Your task to perform on an android device: What's the weather going to be this weekend? Image 0: 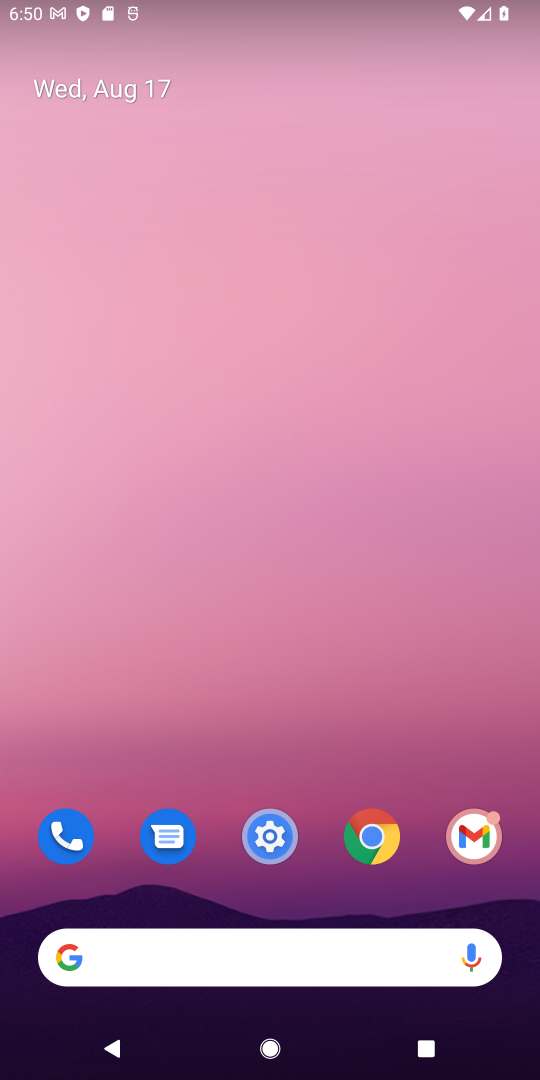
Step 0: drag from (345, 916) to (338, 389)
Your task to perform on an android device: What's the weather going to be this weekend? Image 1: 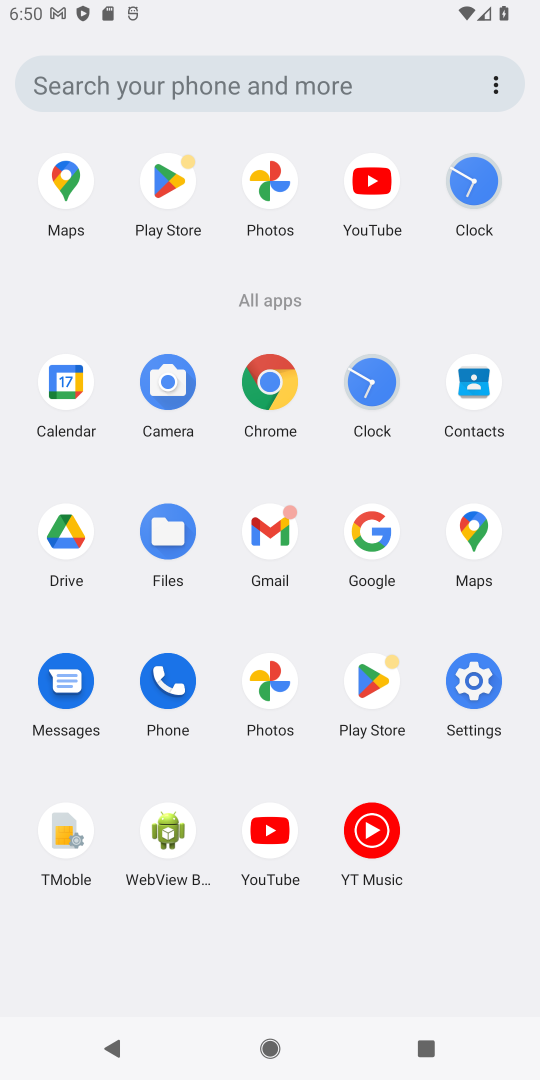
Step 1: click (275, 369)
Your task to perform on an android device: What's the weather going to be this weekend? Image 2: 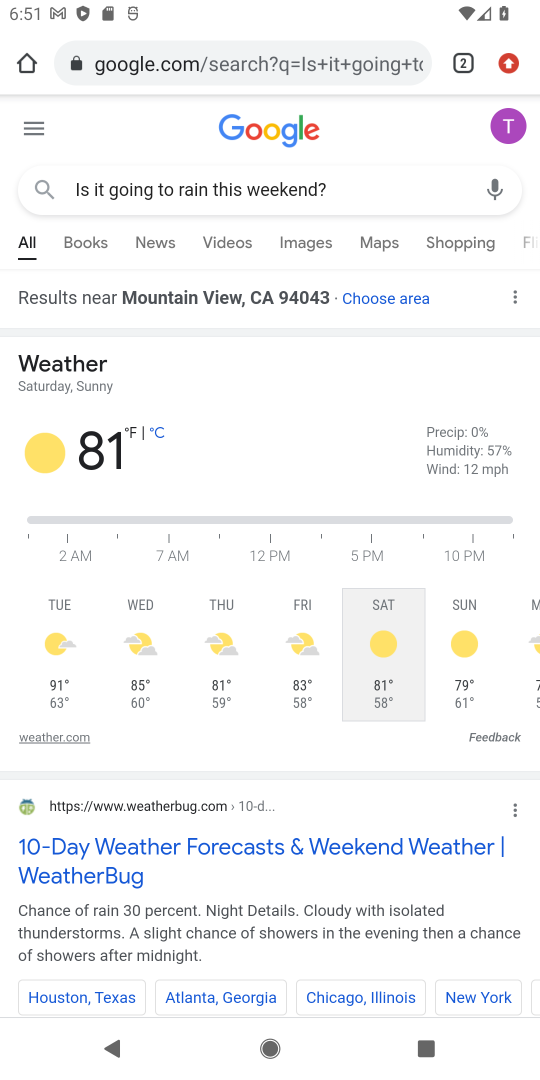
Step 2: click (492, 53)
Your task to perform on an android device: What's the weather going to be this weekend? Image 3: 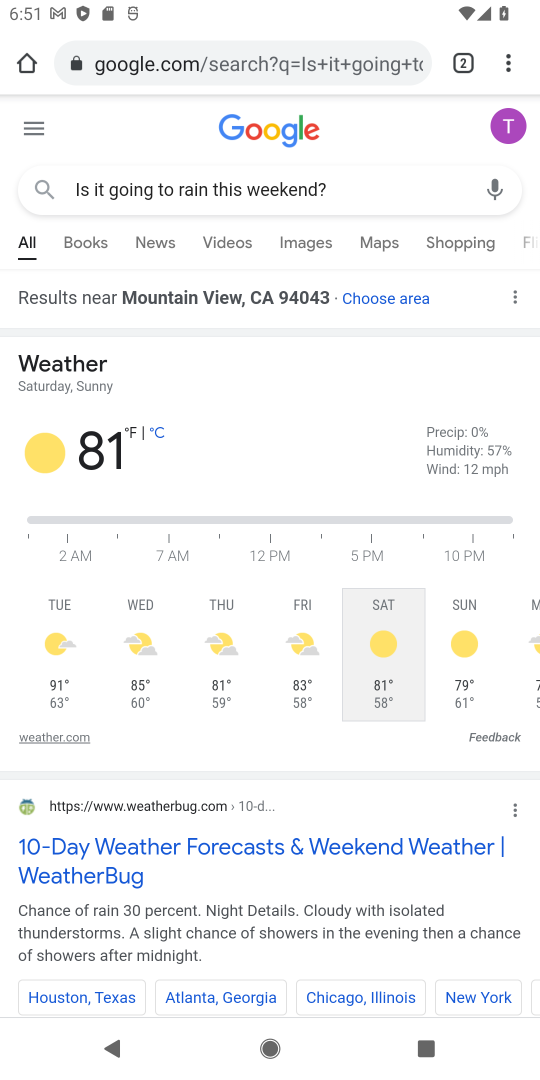
Step 3: click (510, 66)
Your task to perform on an android device: What's the weather going to be this weekend? Image 4: 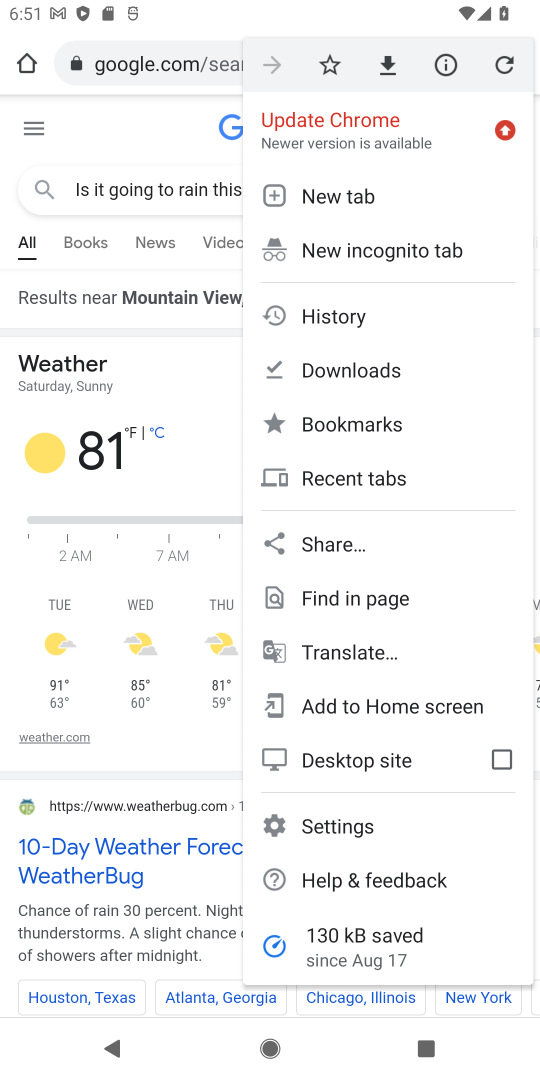
Step 4: click (371, 187)
Your task to perform on an android device: What's the weather going to be this weekend? Image 5: 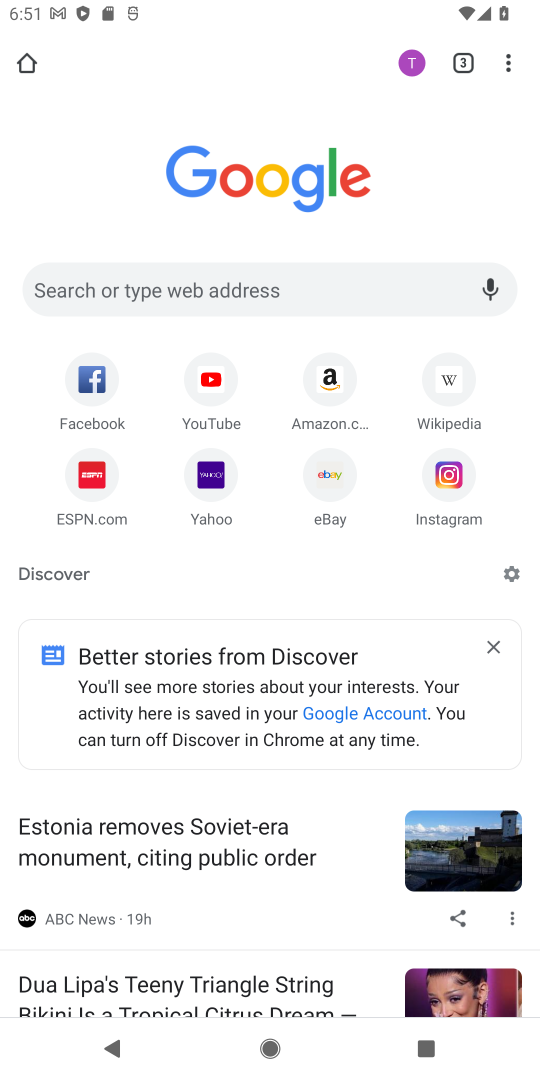
Step 5: drag from (302, 962) to (421, 1064)
Your task to perform on an android device: What's the weather going to be this weekend? Image 6: 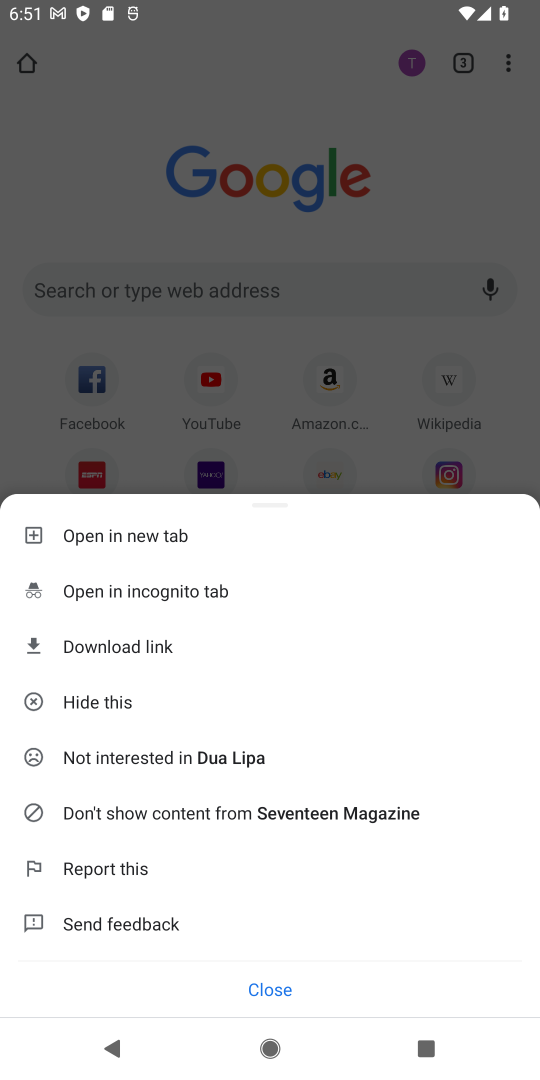
Step 6: click (188, 276)
Your task to perform on an android device: What's the weather going to be this weekend? Image 7: 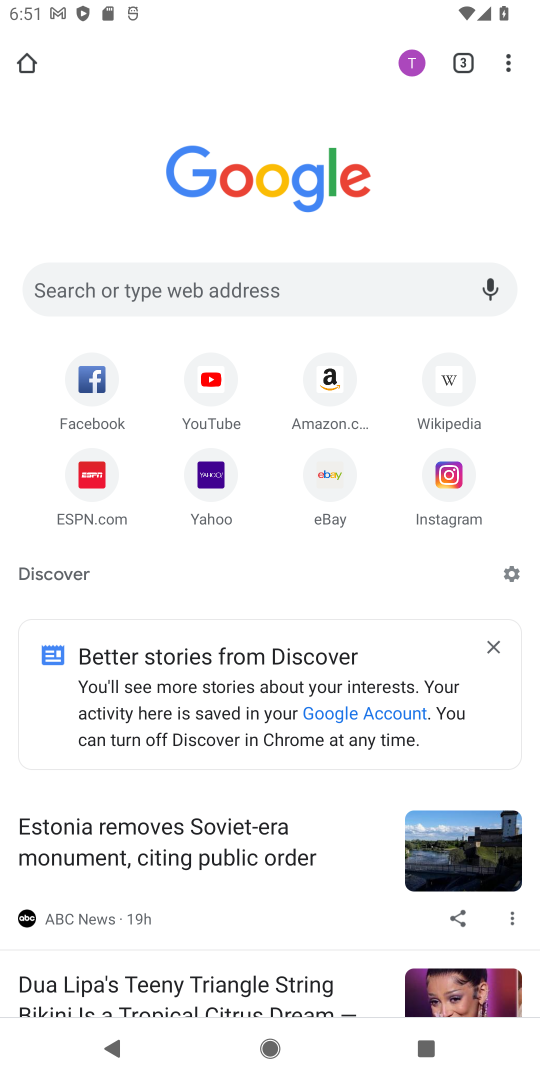
Step 7: click (227, 276)
Your task to perform on an android device: What's the weather going to be this weekend? Image 8: 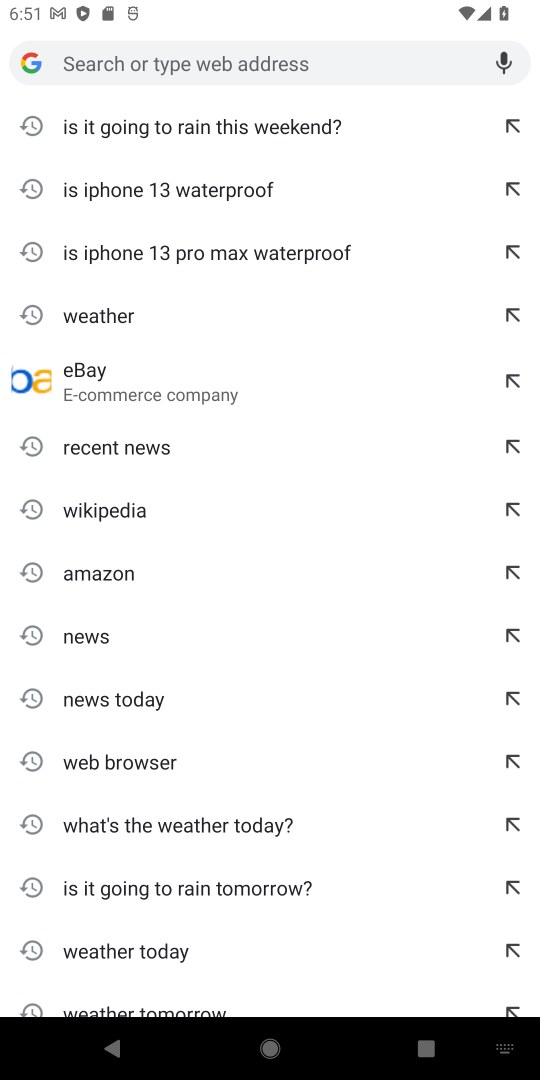
Step 8: type "What's the weather going to be this weekend? "
Your task to perform on an android device: What's the weather going to be this weekend? Image 9: 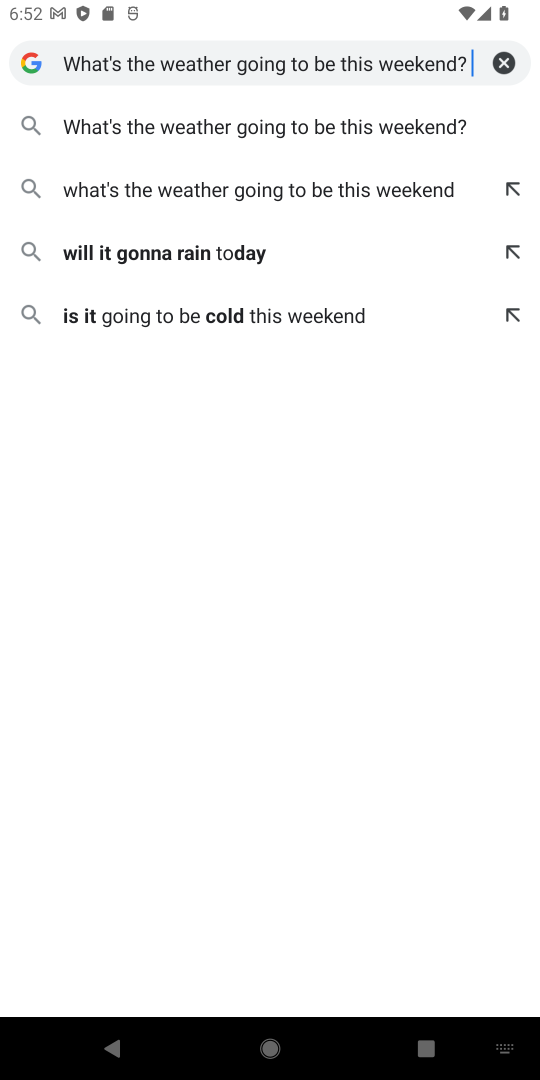
Step 9: click (339, 124)
Your task to perform on an android device: What's the weather going to be this weekend? Image 10: 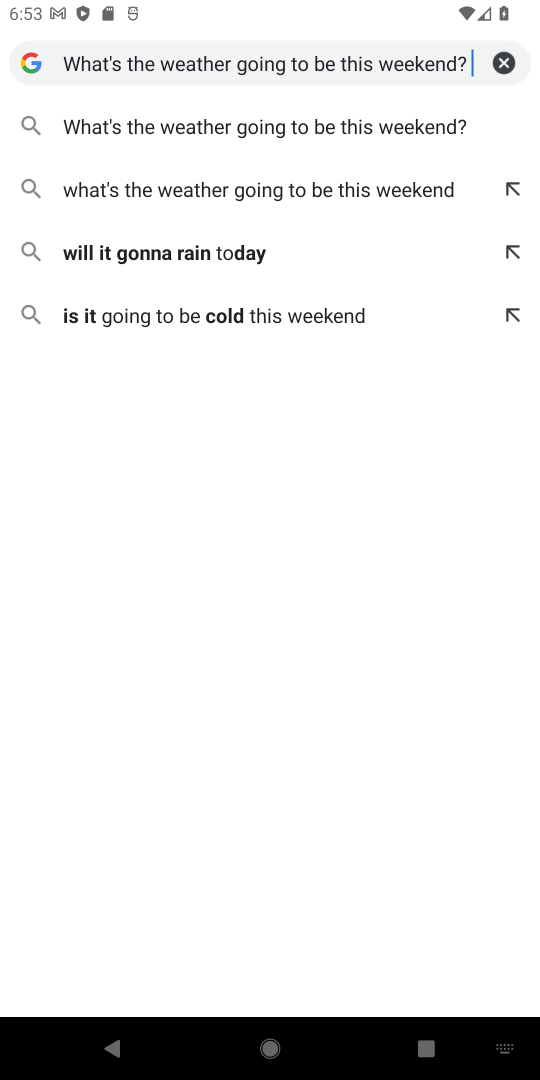
Step 10: click (215, 120)
Your task to perform on an android device: What's the weather going to be this weekend? Image 11: 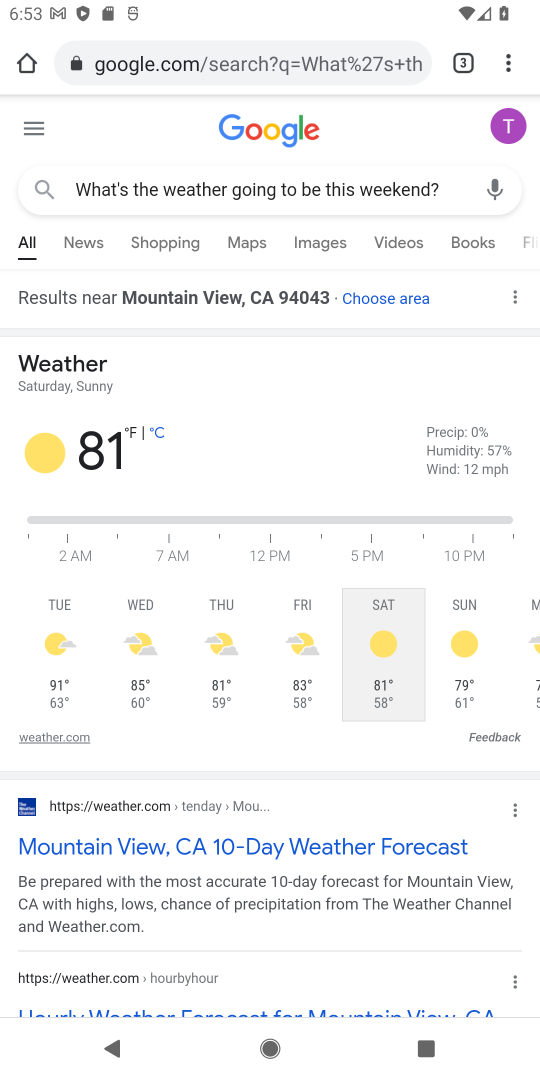
Step 11: task complete